Your task to perform on an android device: set default search engine in the chrome app Image 0: 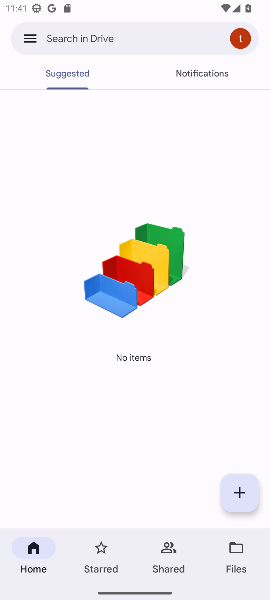
Step 0: press home button
Your task to perform on an android device: set default search engine in the chrome app Image 1: 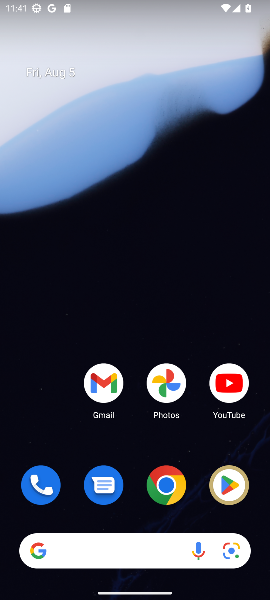
Step 1: click (163, 492)
Your task to perform on an android device: set default search engine in the chrome app Image 2: 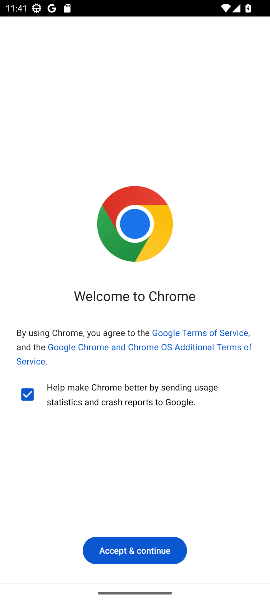
Step 2: click (136, 549)
Your task to perform on an android device: set default search engine in the chrome app Image 3: 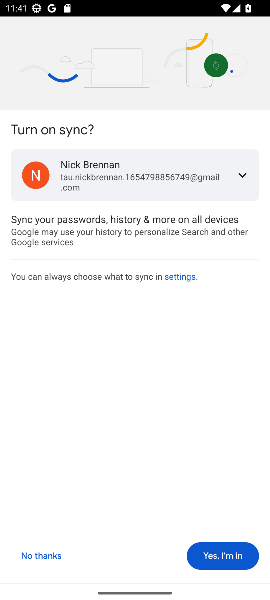
Step 3: click (223, 558)
Your task to perform on an android device: set default search engine in the chrome app Image 4: 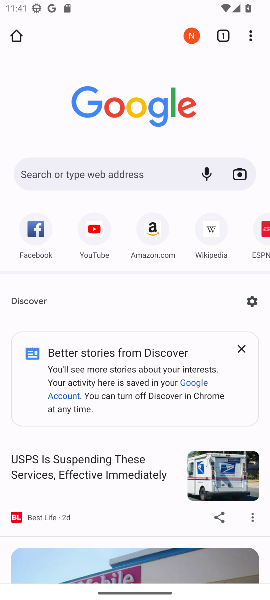
Step 4: click (249, 34)
Your task to perform on an android device: set default search engine in the chrome app Image 5: 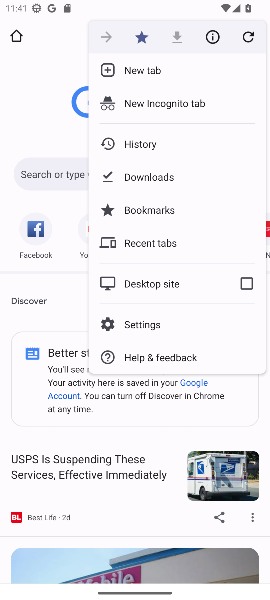
Step 5: click (149, 315)
Your task to perform on an android device: set default search engine in the chrome app Image 6: 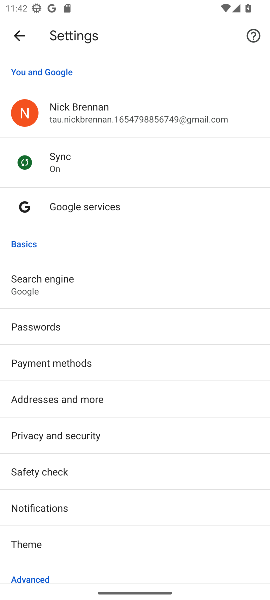
Step 6: click (45, 277)
Your task to perform on an android device: set default search engine in the chrome app Image 7: 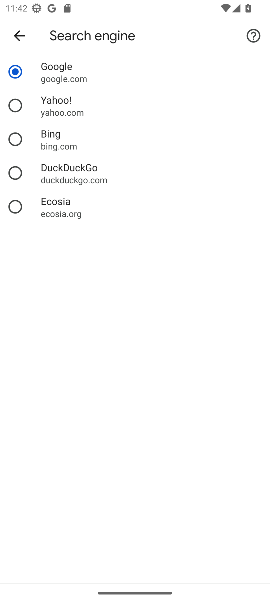
Step 7: task complete